Your task to perform on an android device: open wifi settings Image 0: 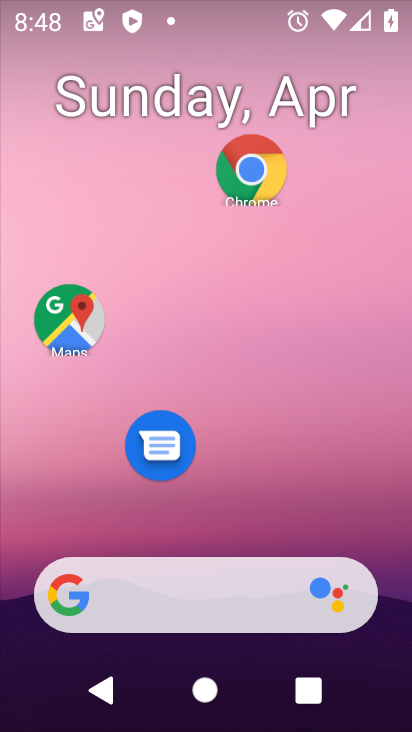
Step 0: drag from (281, 460) to (289, 60)
Your task to perform on an android device: open wifi settings Image 1: 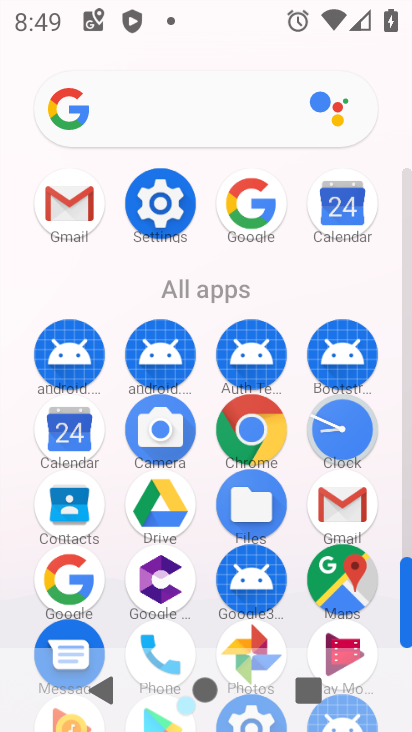
Step 1: drag from (290, 554) to (266, 524)
Your task to perform on an android device: open wifi settings Image 2: 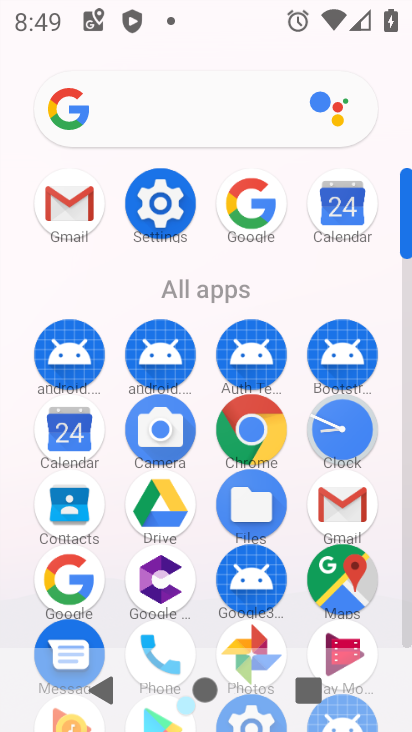
Step 2: click (160, 224)
Your task to perform on an android device: open wifi settings Image 3: 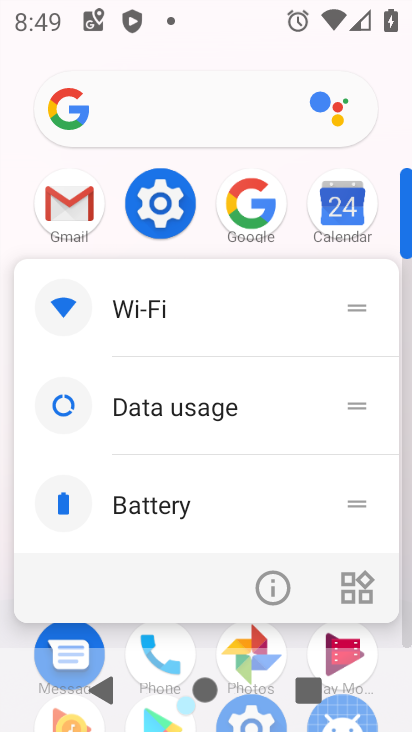
Step 3: click (159, 199)
Your task to perform on an android device: open wifi settings Image 4: 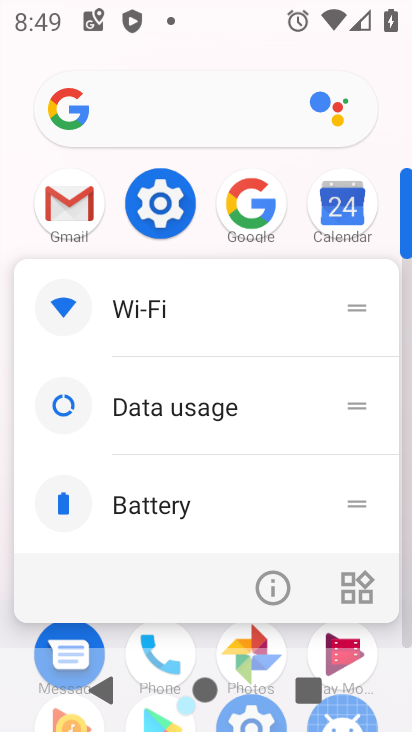
Step 4: click (159, 199)
Your task to perform on an android device: open wifi settings Image 5: 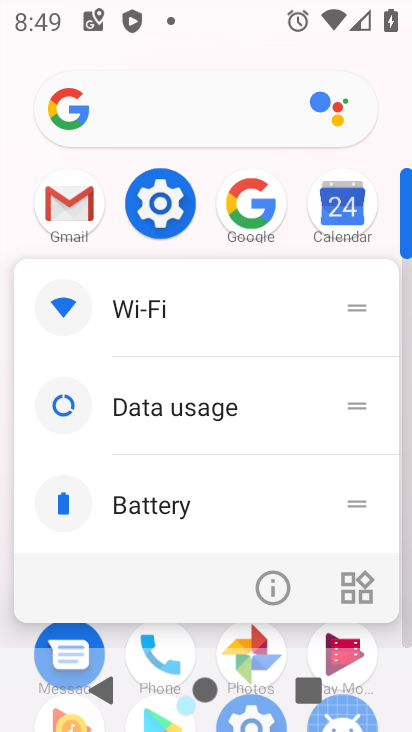
Step 5: click (159, 199)
Your task to perform on an android device: open wifi settings Image 6: 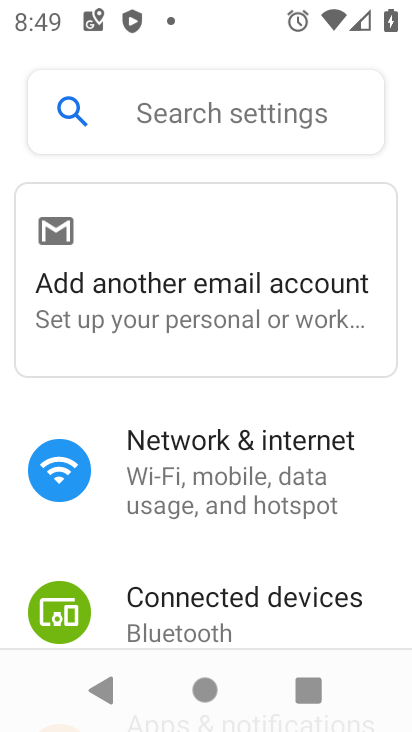
Step 6: click (248, 451)
Your task to perform on an android device: open wifi settings Image 7: 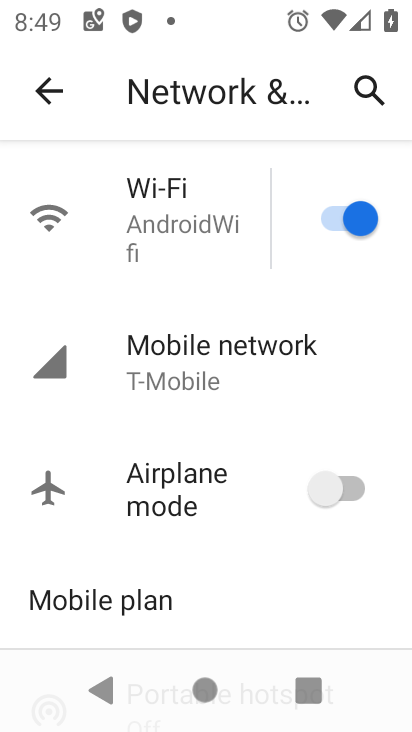
Step 7: click (197, 217)
Your task to perform on an android device: open wifi settings Image 8: 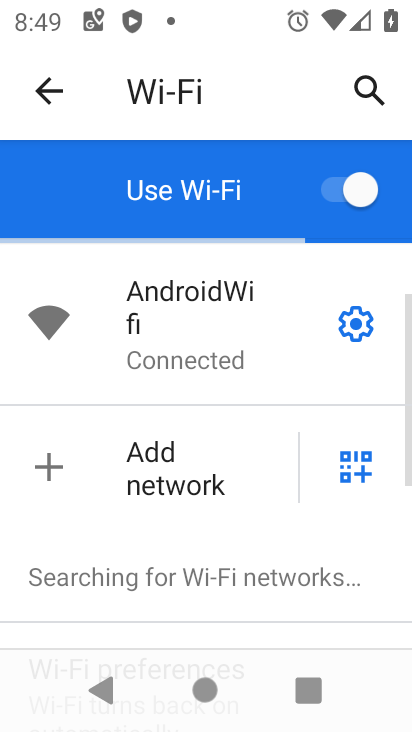
Step 8: click (361, 324)
Your task to perform on an android device: open wifi settings Image 9: 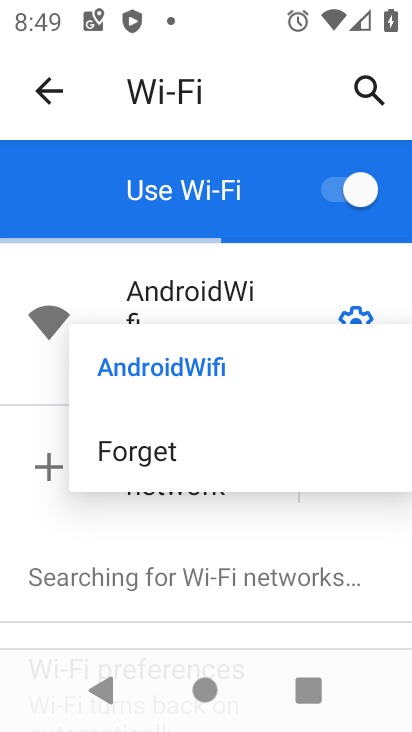
Step 9: click (345, 277)
Your task to perform on an android device: open wifi settings Image 10: 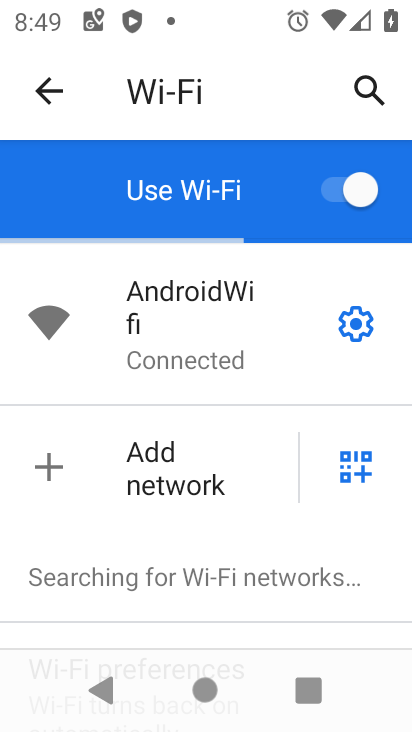
Step 10: click (360, 328)
Your task to perform on an android device: open wifi settings Image 11: 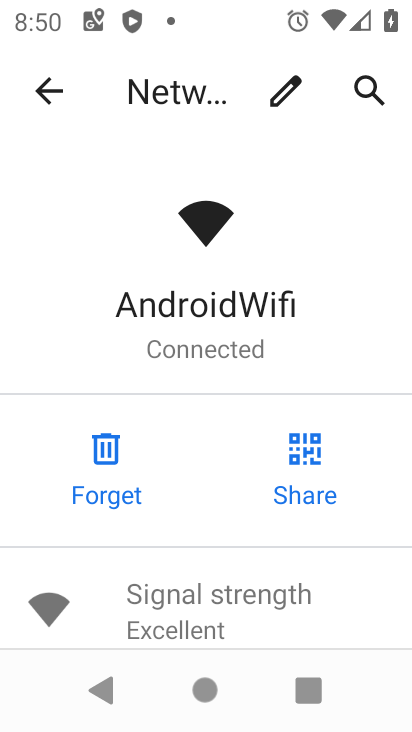
Step 11: task complete